Your task to perform on an android device: set the stopwatch Image 0: 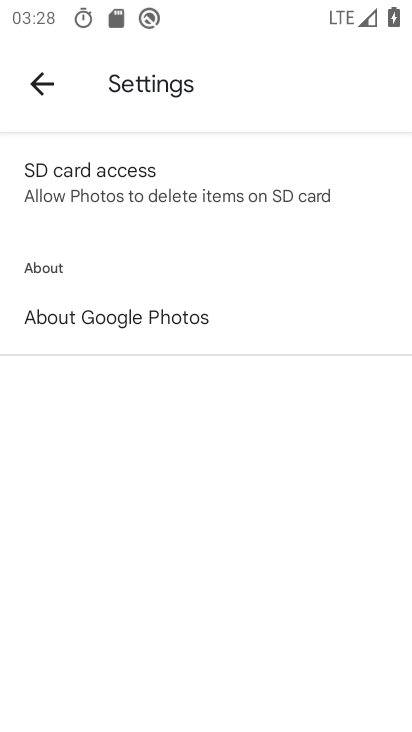
Step 0: press home button
Your task to perform on an android device: set the stopwatch Image 1: 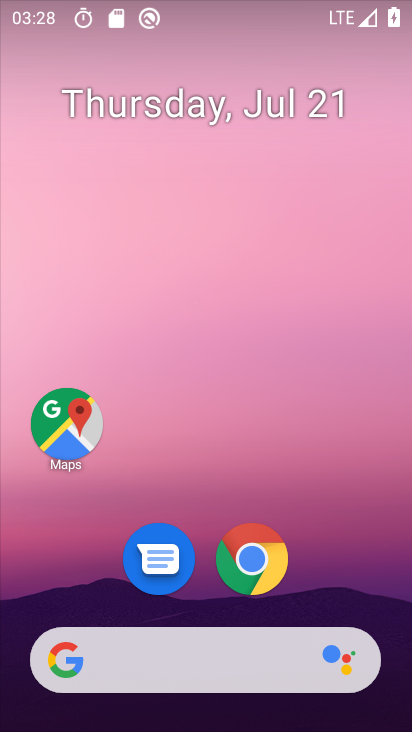
Step 1: drag from (347, 564) to (382, 288)
Your task to perform on an android device: set the stopwatch Image 2: 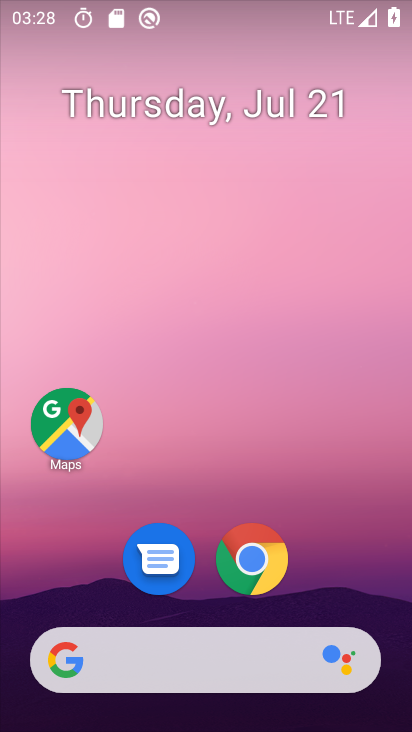
Step 2: drag from (337, 551) to (351, 80)
Your task to perform on an android device: set the stopwatch Image 3: 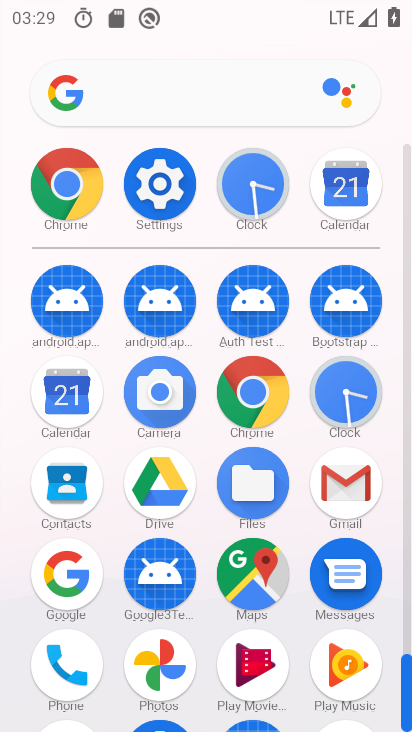
Step 3: click (354, 384)
Your task to perform on an android device: set the stopwatch Image 4: 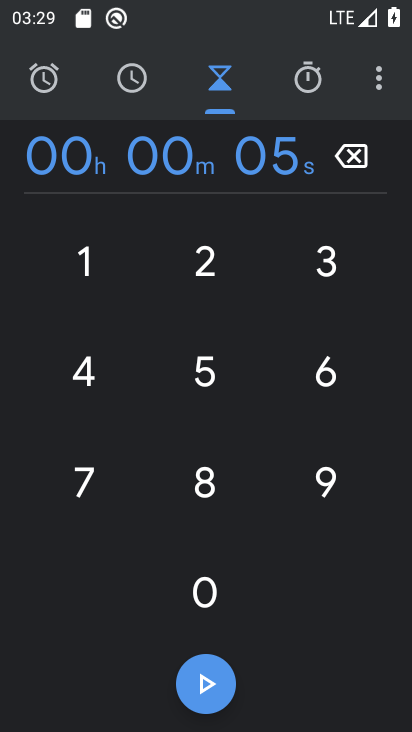
Step 4: click (312, 82)
Your task to perform on an android device: set the stopwatch Image 5: 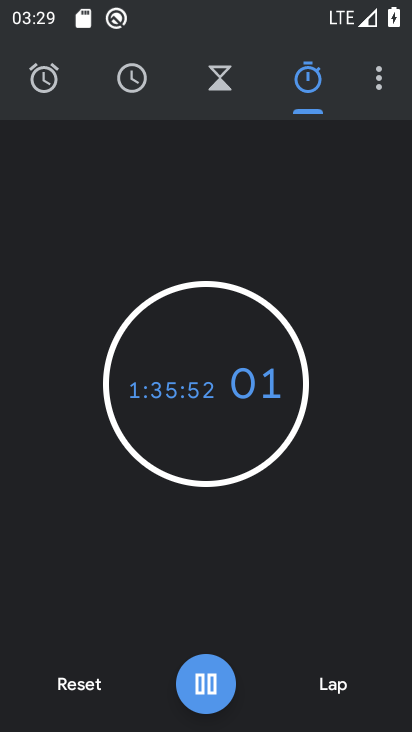
Step 5: task complete